Your task to perform on an android device: turn on the 12-hour format for clock Image 0: 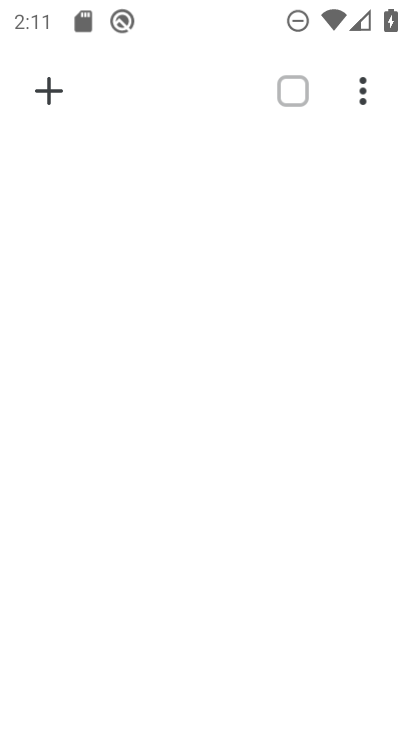
Step 0: press home button
Your task to perform on an android device: turn on the 12-hour format for clock Image 1: 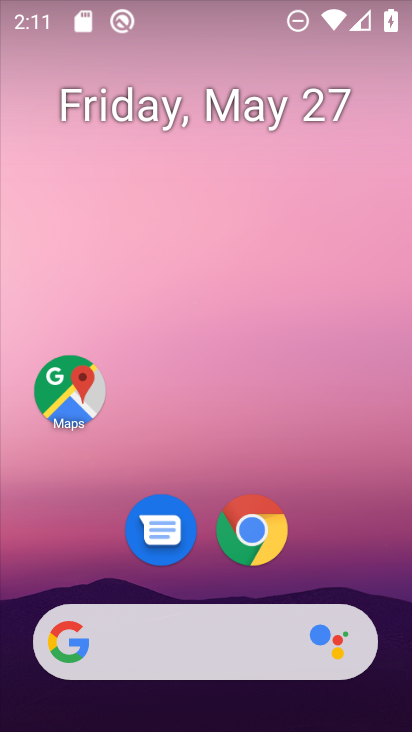
Step 1: drag from (126, 729) to (131, 15)
Your task to perform on an android device: turn on the 12-hour format for clock Image 2: 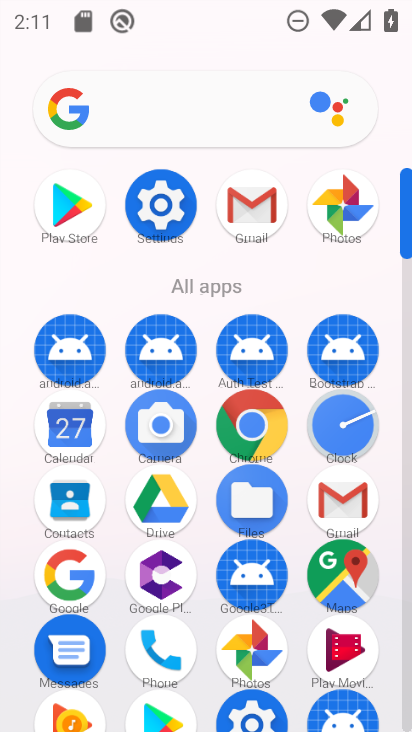
Step 2: click (161, 215)
Your task to perform on an android device: turn on the 12-hour format for clock Image 3: 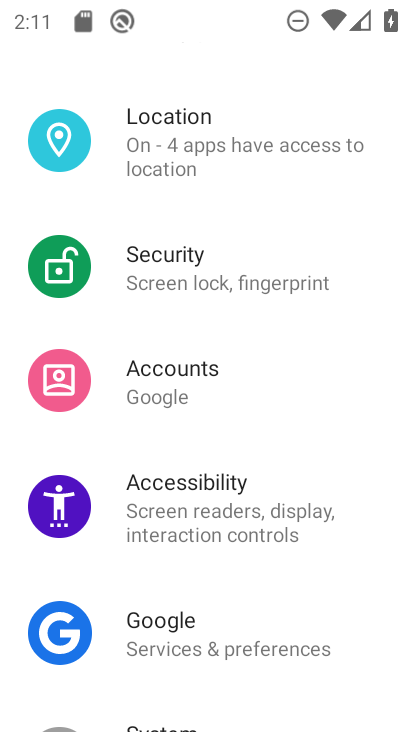
Step 3: click (218, 212)
Your task to perform on an android device: turn on the 12-hour format for clock Image 4: 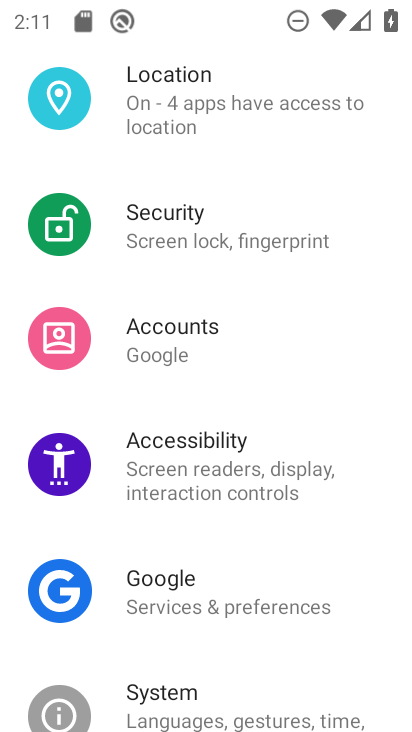
Step 4: click (277, 716)
Your task to perform on an android device: turn on the 12-hour format for clock Image 5: 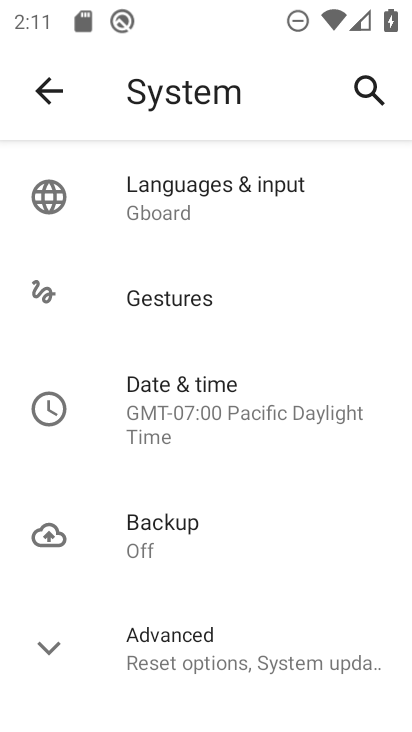
Step 5: click (221, 423)
Your task to perform on an android device: turn on the 12-hour format for clock Image 6: 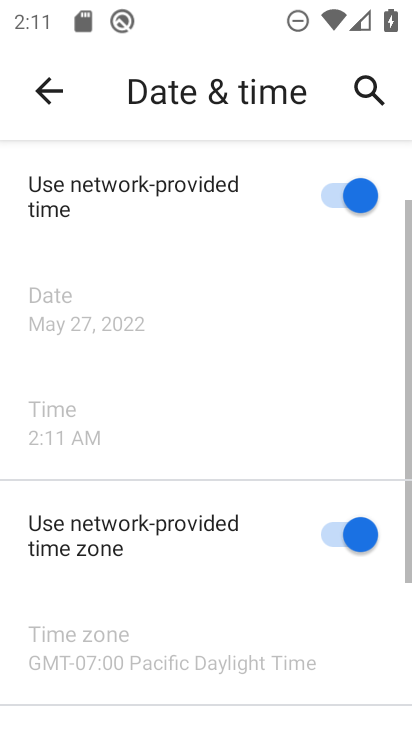
Step 6: task complete